Your task to perform on an android device: Open the calendar app, open the side menu, and click the "Day" option Image 0: 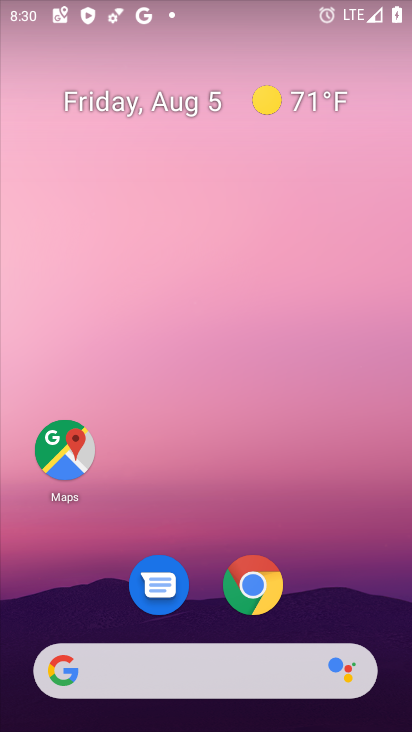
Step 0: drag from (354, 560) to (357, 44)
Your task to perform on an android device: Open the calendar app, open the side menu, and click the "Day" option Image 1: 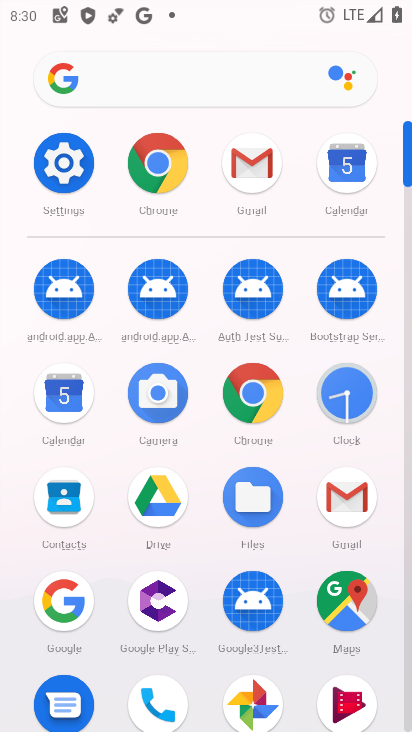
Step 1: click (74, 389)
Your task to perform on an android device: Open the calendar app, open the side menu, and click the "Day" option Image 2: 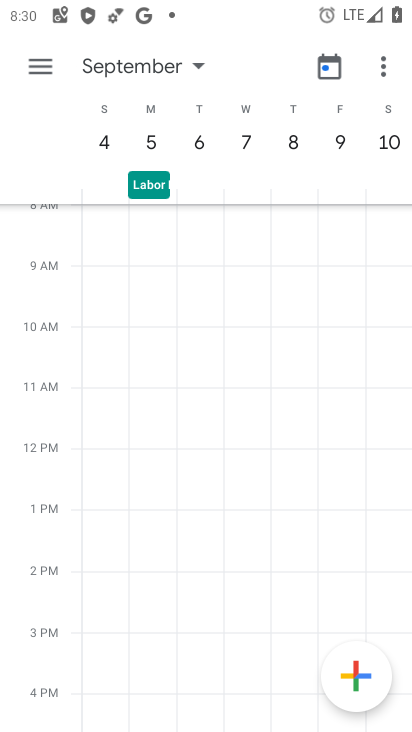
Step 2: click (48, 65)
Your task to perform on an android device: Open the calendar app, open the side menu, and click the "Day" option Image 3: 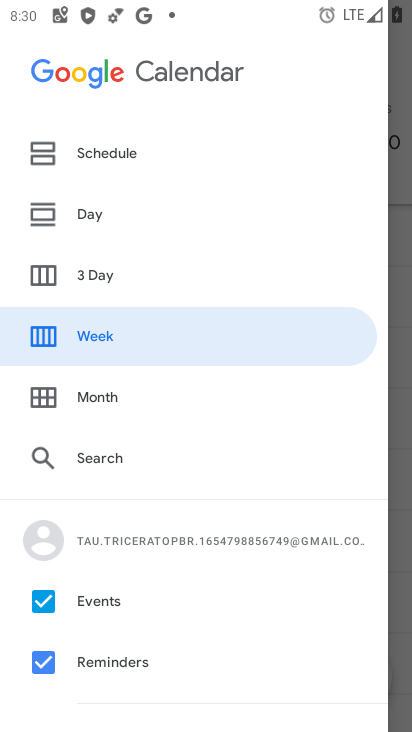
Step 3: click (44, 205)
Your task to perform on an android device: Open the calendar app, open the side menu, and click the "Day" option Image 4: 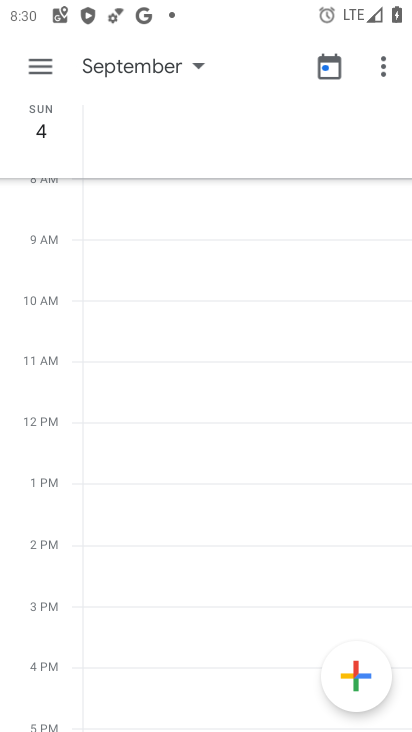
Step 4: task complete